Your task to perform on an android device: Go to Google maps Image 0: 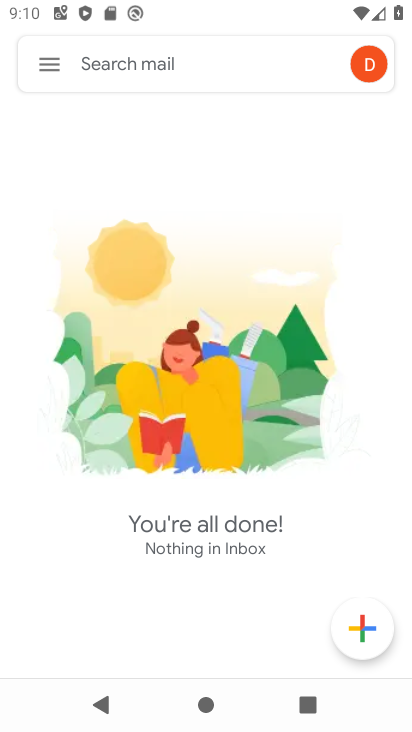
Step 0: press home button
Your task to perform on an android device: Go to Google maps Image 1: 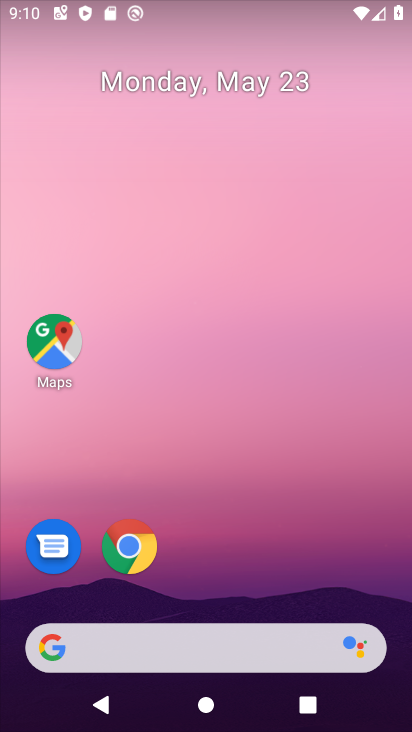
Step 1: click (52, 340)
Your task to perform on an android device: Go to Google maps Image 2: 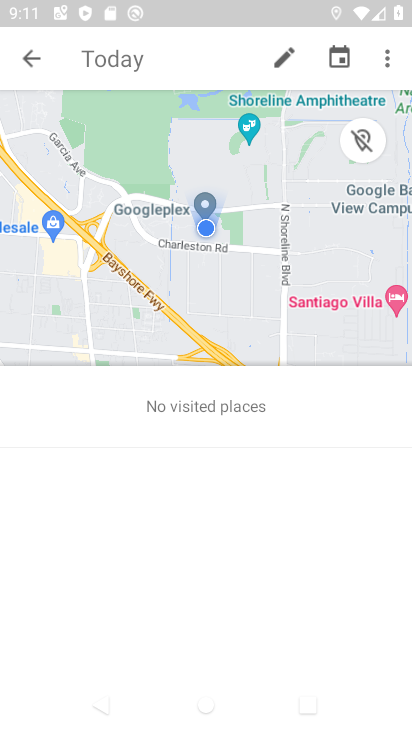
Step 2: task complete